Your task to perform on an android device: Install the Spotify app Image 0: 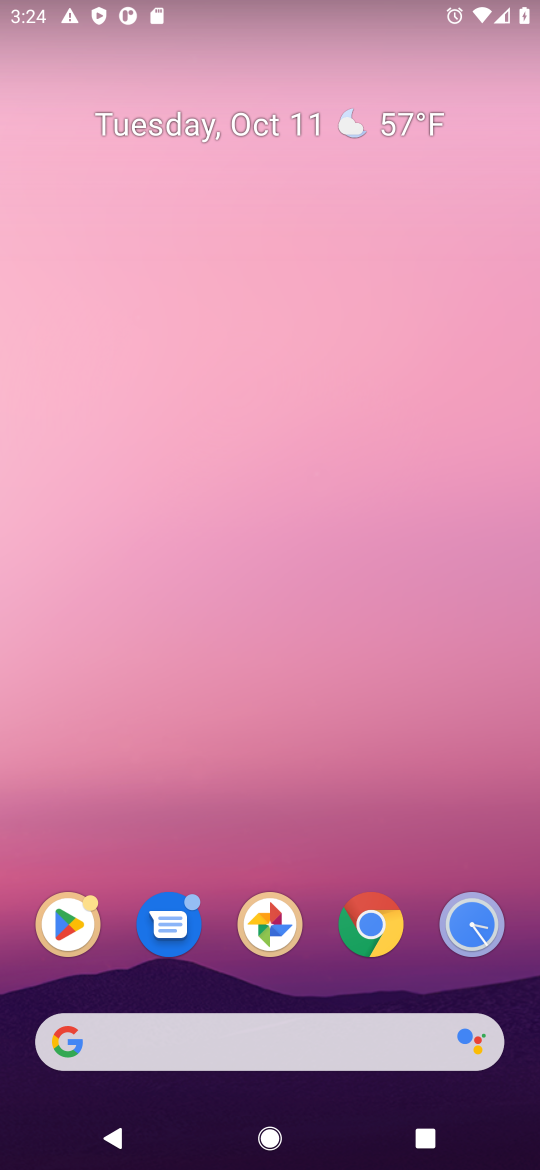
Step 0: drag from (318, 934) to (299, 0)
Your task to perform on an android device: Install the Spotify app Image 1: 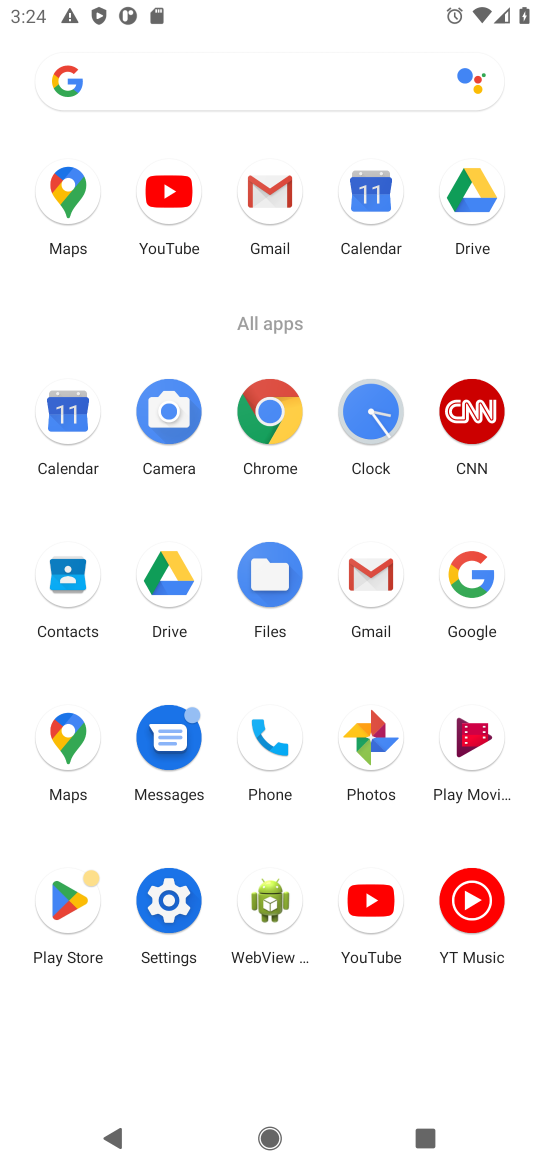
Step 1: click (84, 890)
Your task to perform on an android device: Install the Spotify app Image 2: 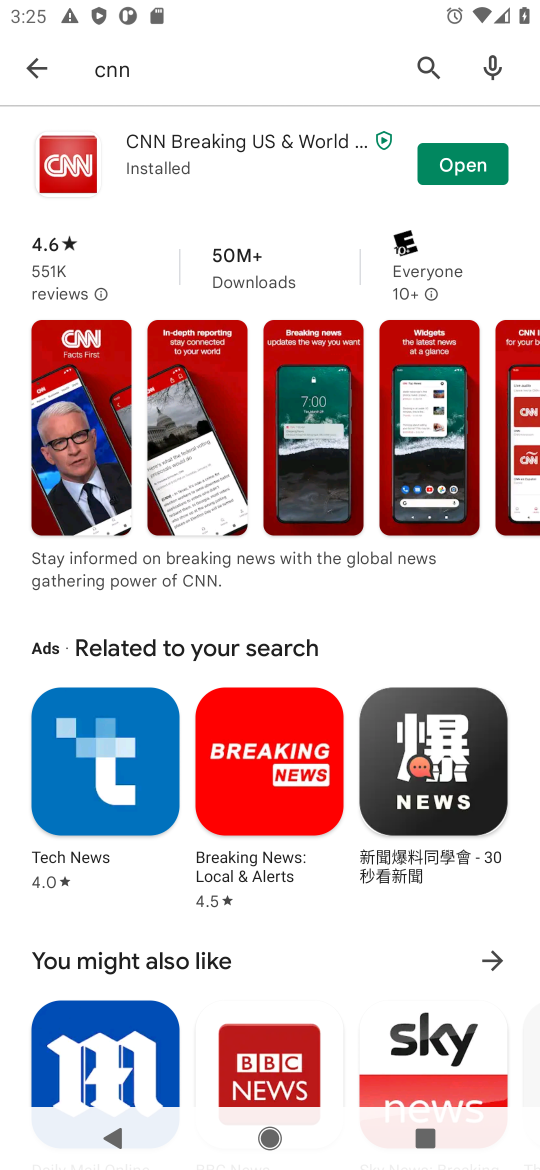
Step 2: click (425, 62)
Your task to perform on an android device: Install the Spotify app Image 3: 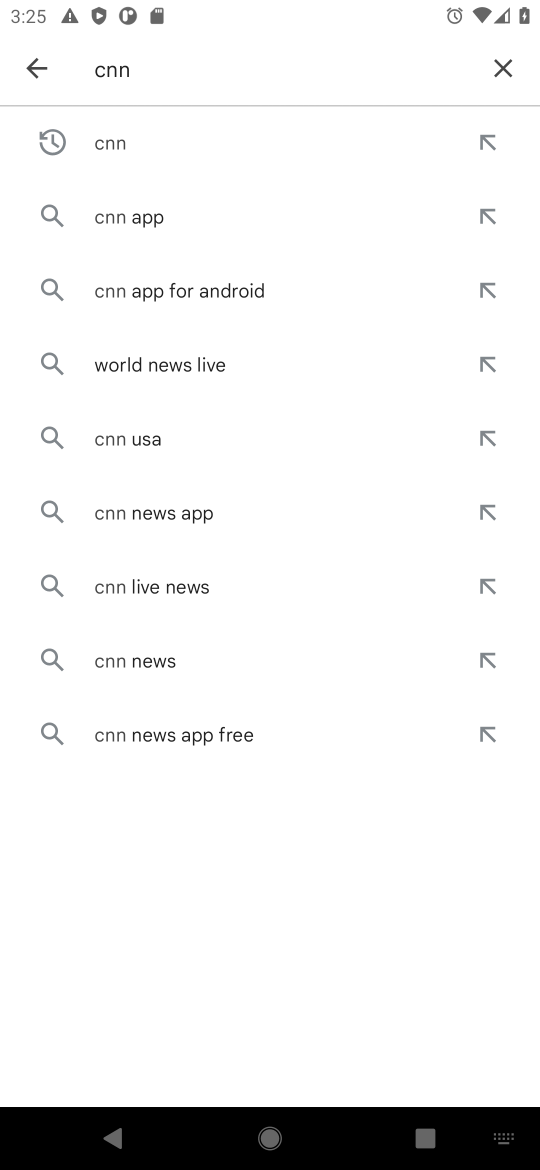
Step 3: click (500, 61)
Your task to perform on an android device: Install the Spotify app Image 4: 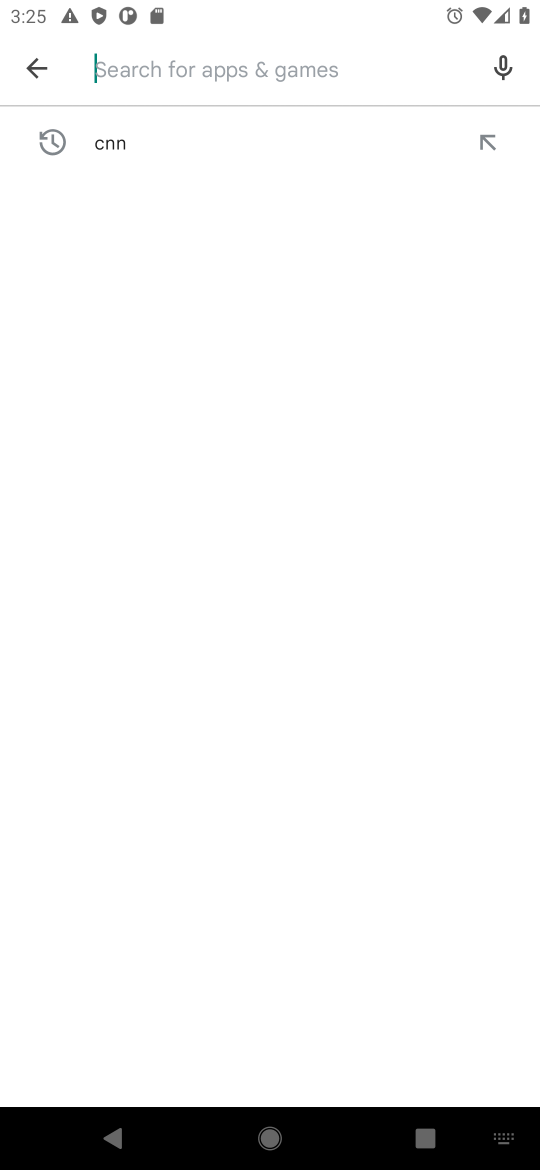
Step 4: type "Spotify app"
Your task to perform on an android device: Install the Spotify app Image 5: 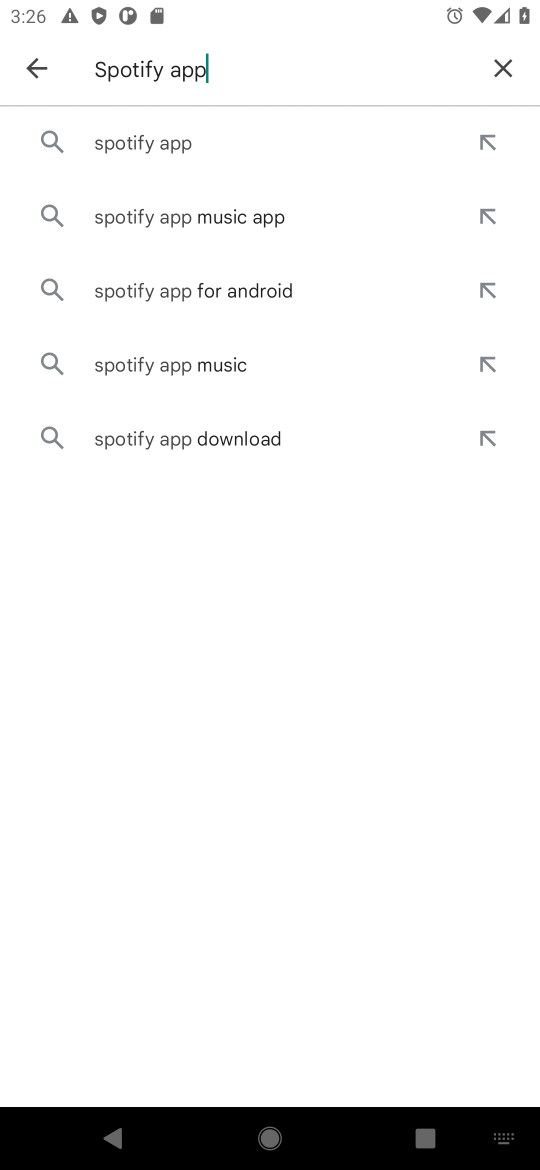
Step 5: click (147, 136)
Your task to perform on an android device: Install the Spotify app Image 6: 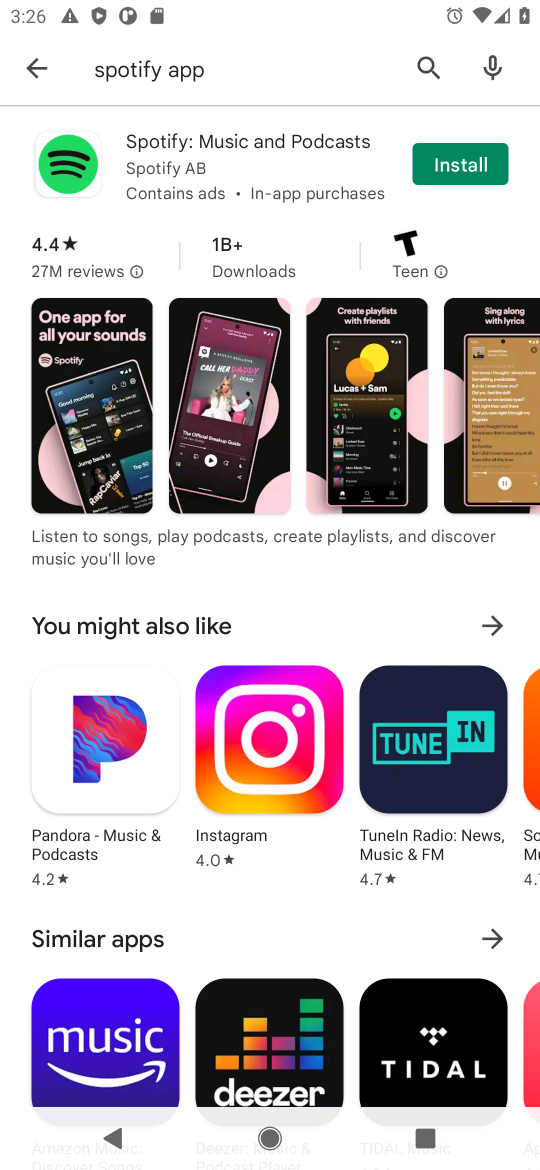
Step 6: click (415, 168)
Your task to perform on an android device: Install the Spotify app Image 7: 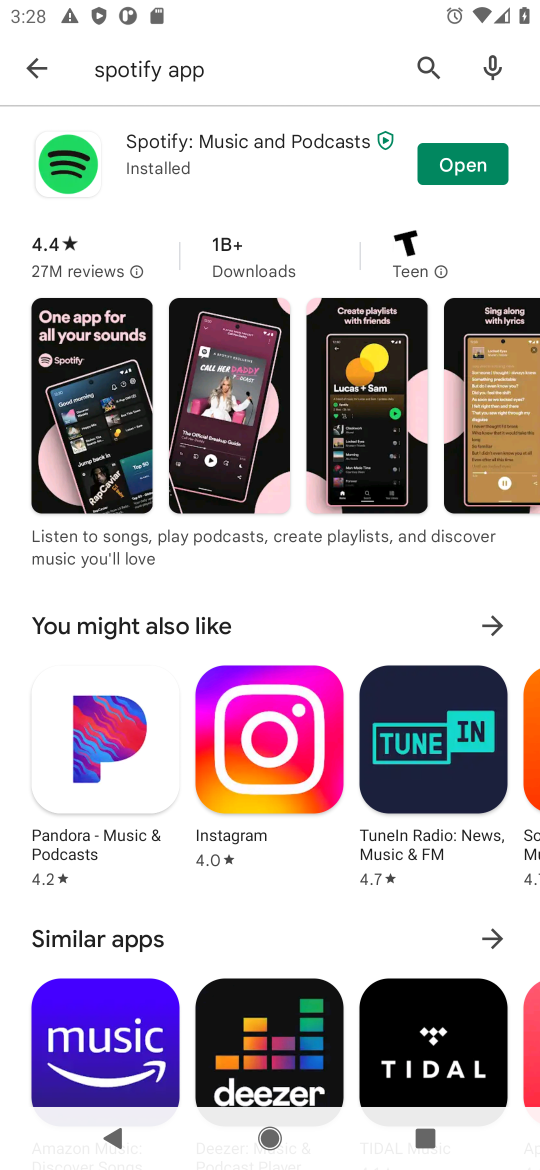
Step 7: task complete